Your task to perform on an android device: see sites visited before in the chrome app Image 0: 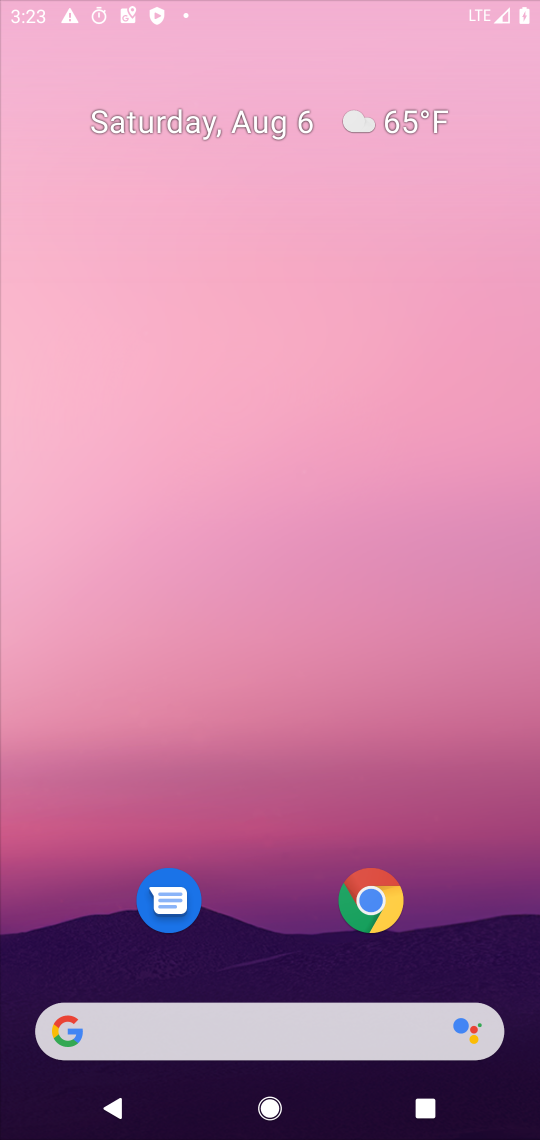
Step 0: press home button
Your task to perform on an android device: see sites visited before in the chrome app Image 1: 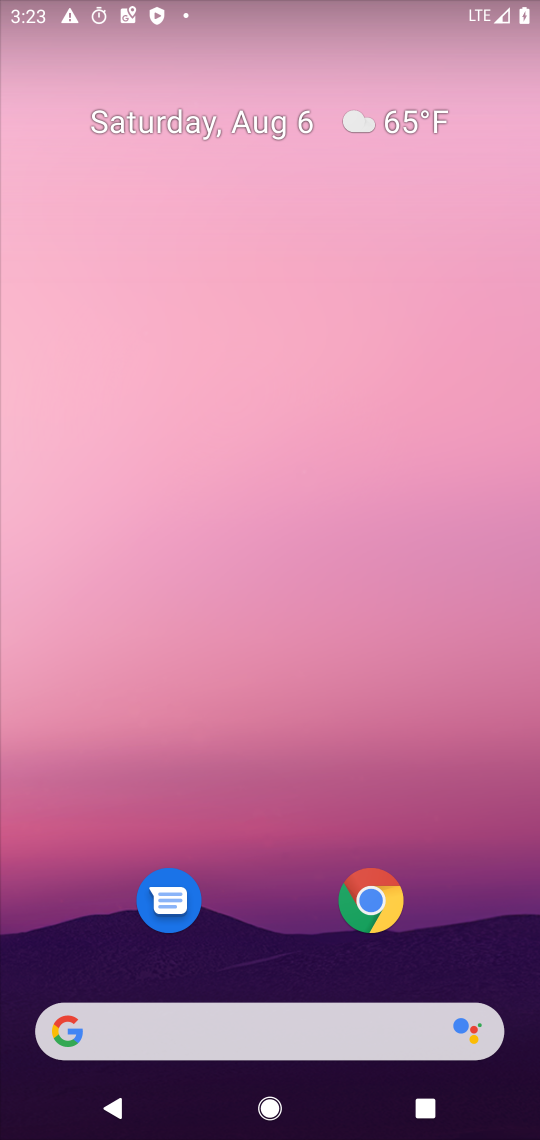
Step 1: click (357, 901)
Your task to perform on an android device: see sites visited before in the chrome app Image 2: 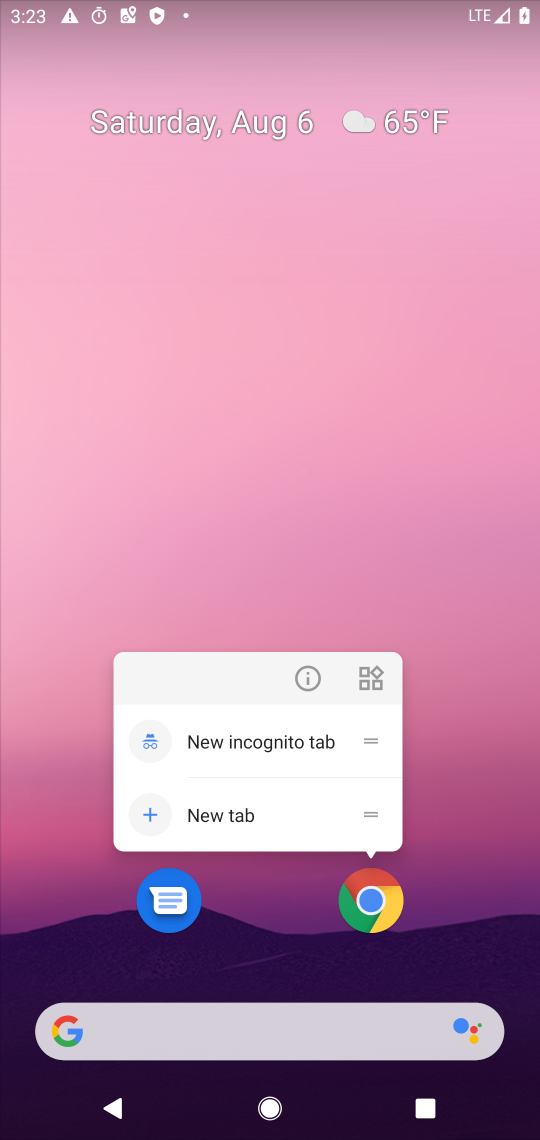
Step 2: click (350, 888)
Your task to perform on an android device: see sites visited before in the chrome app Image 3: 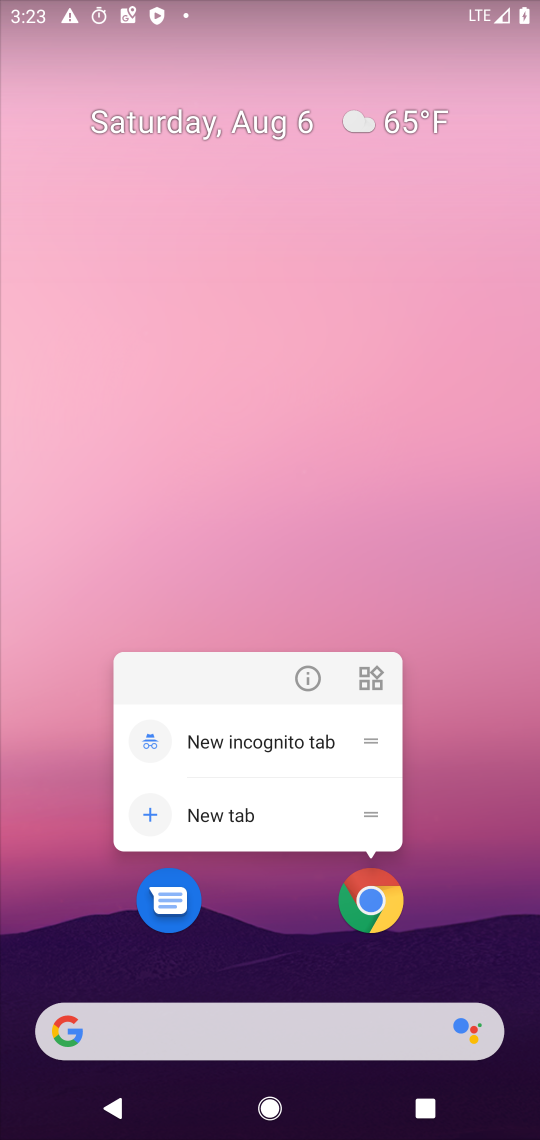
Step 3: click (357, 897)
Your task to perform on an android device: see sites visited before in the chrome app Image 4: 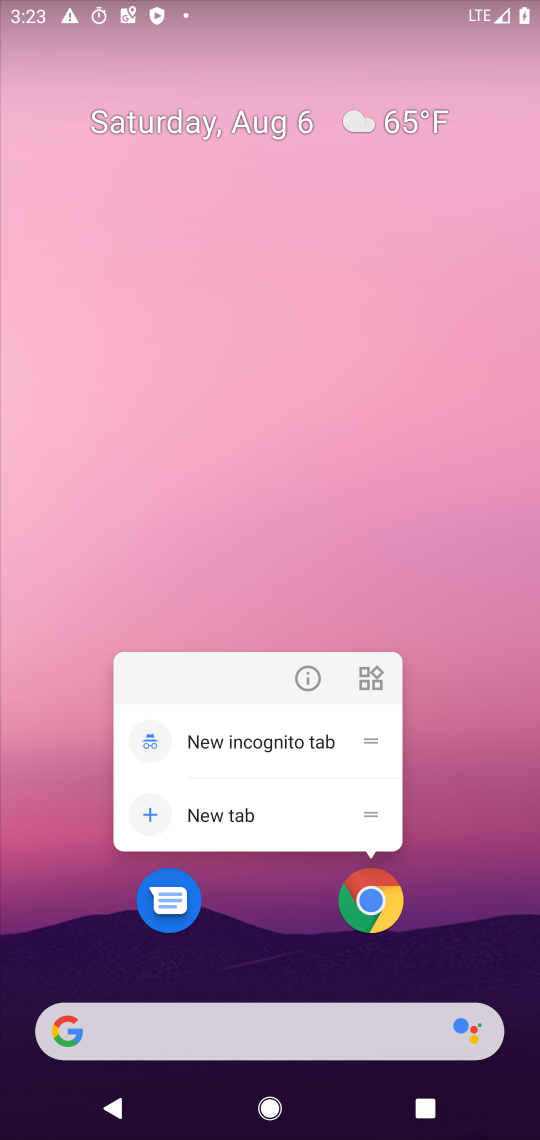
Step 4: click (375, 882)
Your task to perform on an android device: see sites visited before in the chrome app Image 5: 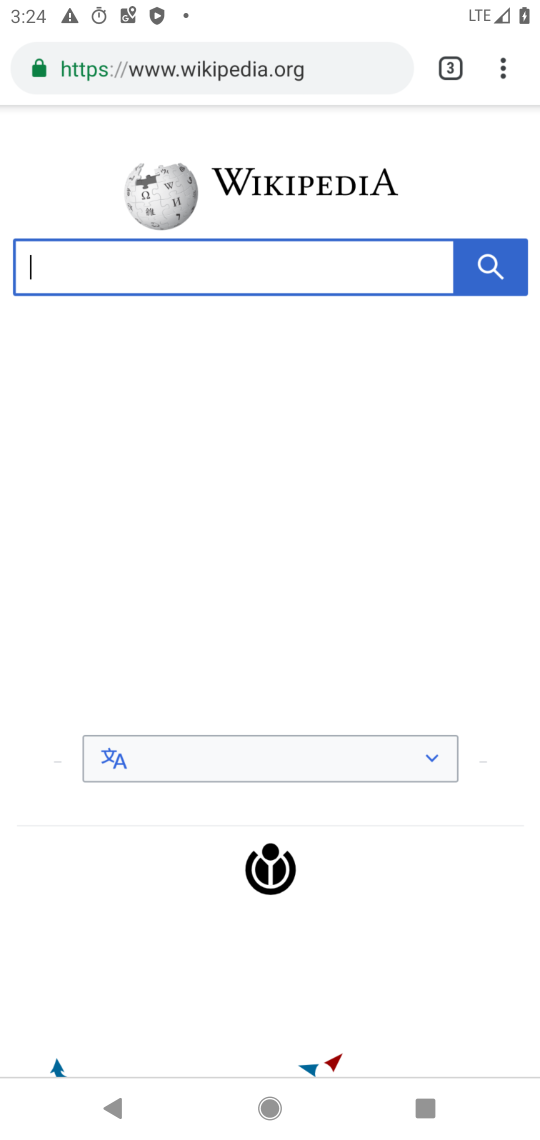
Step 5: click (502, 65)
Your task to perform on an android device: see sites visited before in the chrome app Image 6: 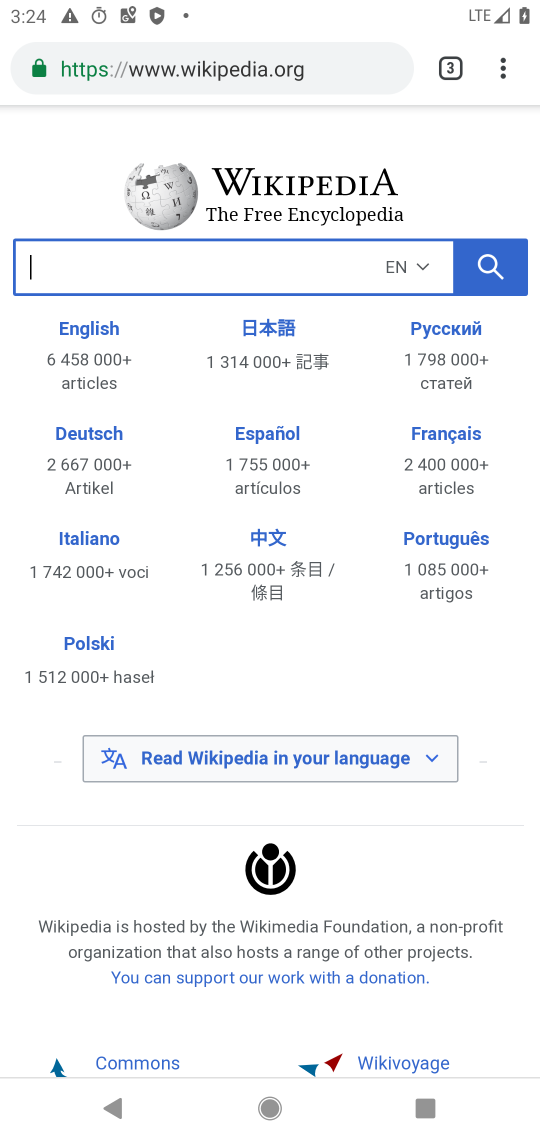
Step 6: task complete